Your task to perform on an android device: toggle priority inbox in the gmail app Image 0: 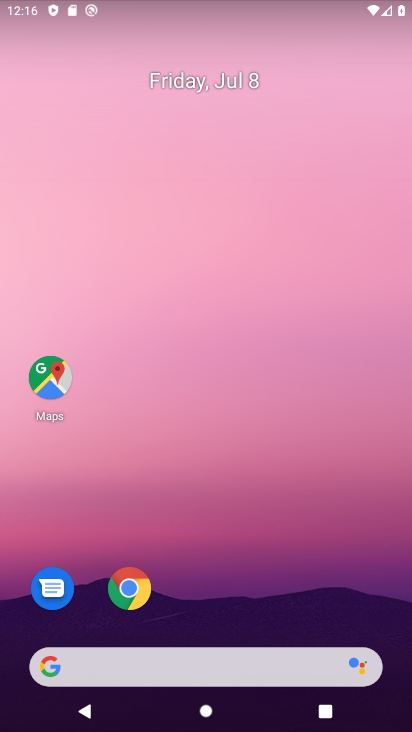
Step 0: press home button
Your task to perform on an android device: toggle priority inbox in the gmail app Image 1: 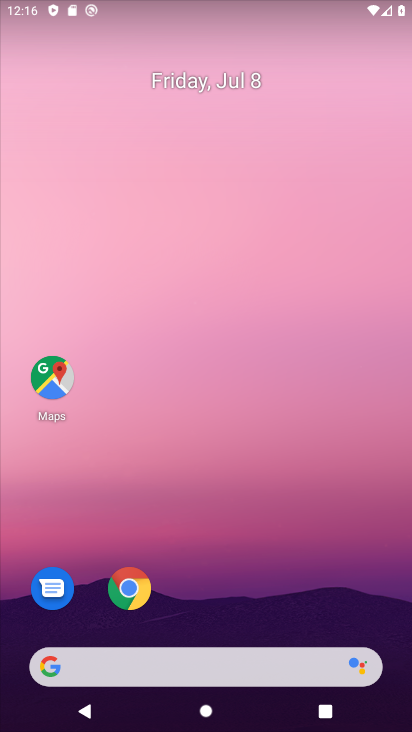
Step 1: drag from (228, 621) to (218, 75)
Your task to perform on an android device: toggle priority inbox in the gmail app Image 2: 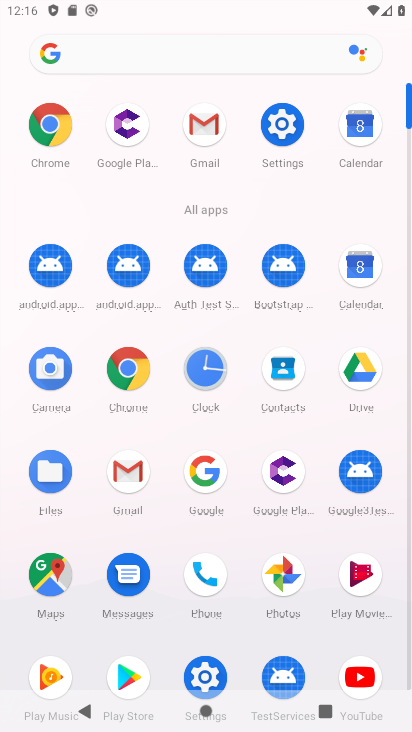
Step 2: click (201, 117)
Your task to perform on an android device: toggle priority inbox in the gmail app Image 3: 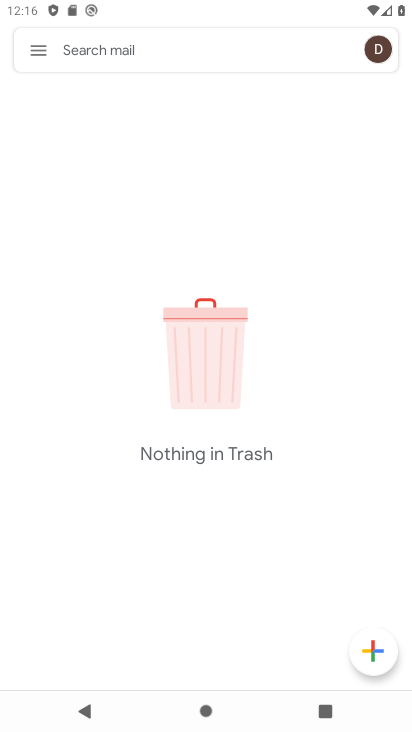
Step 3: click (37, 50)
Your task to perform on an android device: toggle priority inbox in the gmail app Image 4: 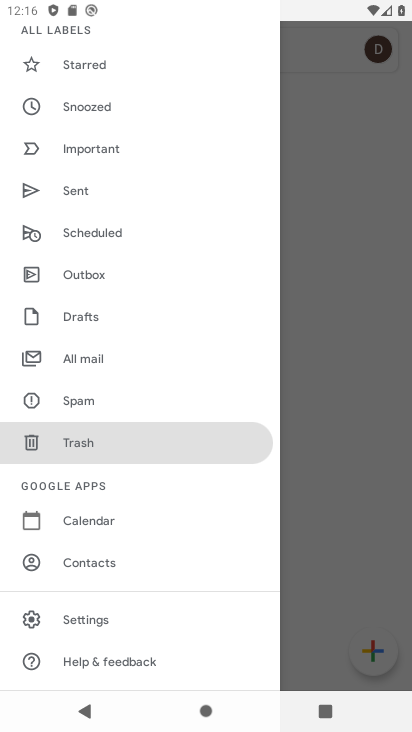
Step 4: click (122, 619)
Your task to perform on an android device: toggle priority inbox in the gmail app Image 5: 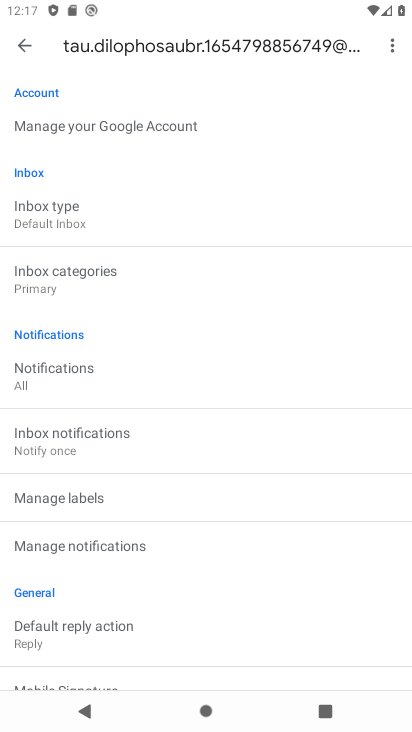
Step 5: click (101, 213)
Your task to perform on an android device: toggle priority inbox in the gmail app Image 6: 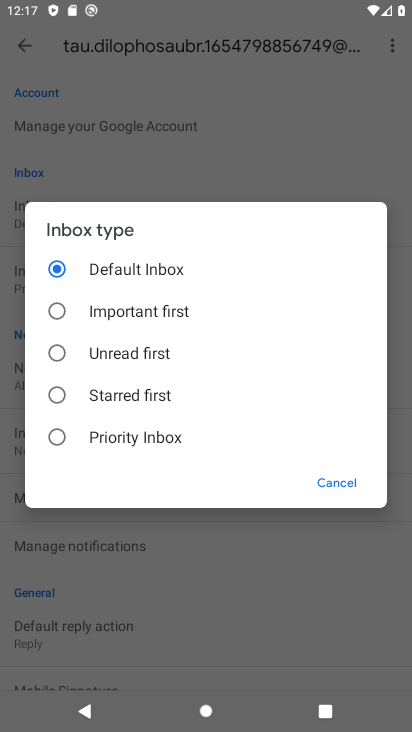
Step 6: click (57, 440)
Your task to perform on an android device: toggle priority inbox in the gmail app Image 7: 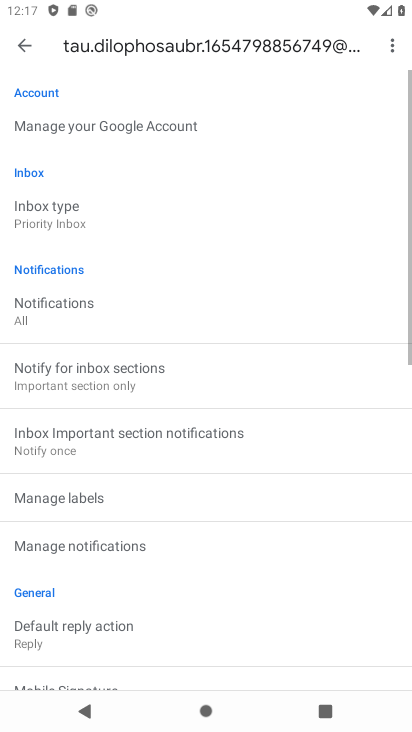
Step 7: task complete